Your task to perform on an android device: change the upload size in google photos Image 0: 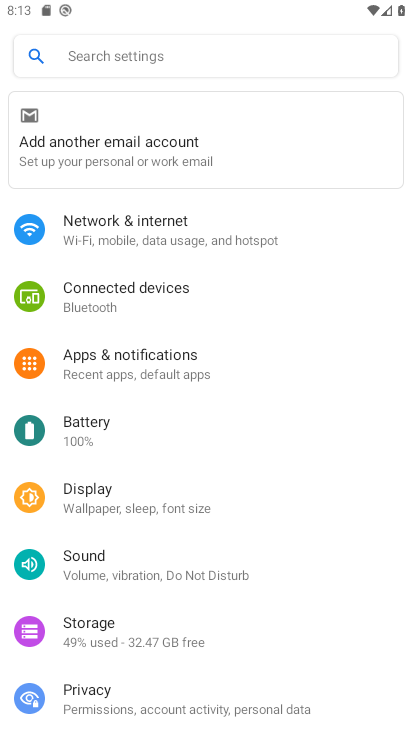
Step 0: press home button
Your task to perform on an android device: change the upload size in google photos Image 1: 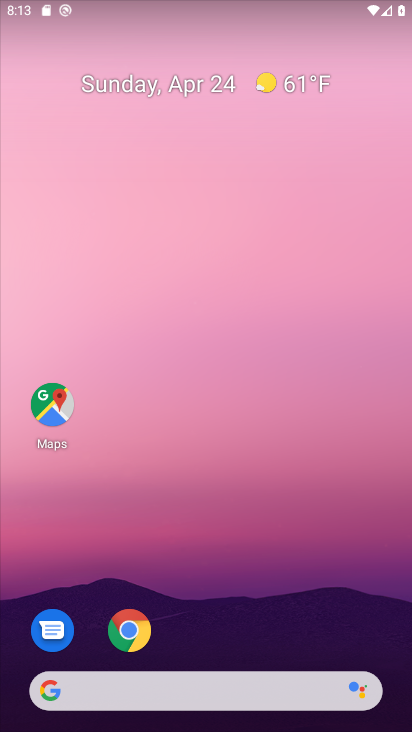
Step 1: drag from (346, 615) to (355, 193)
Your task to perform on an android device: change the upload size in google photos Image 2: 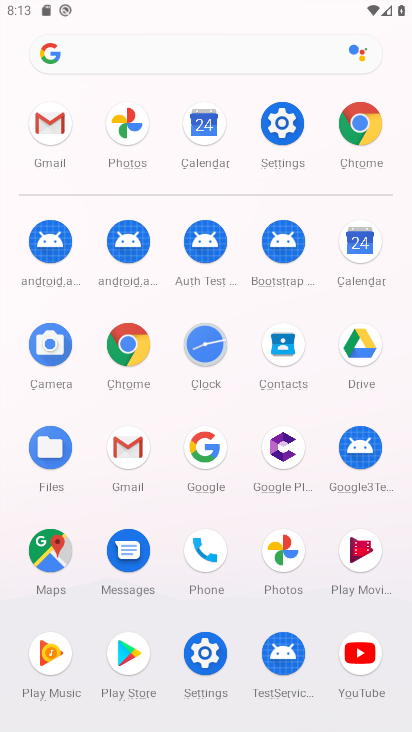
Step 2: click (277, 557)
Your task to perform on an android device: change the upload size in google photos Image 3: 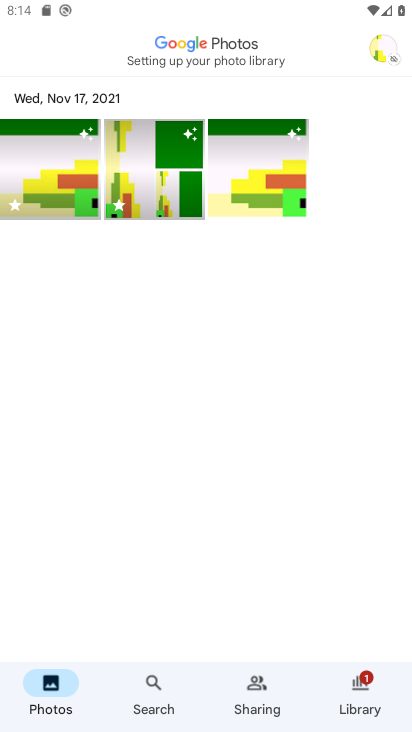
Step 3: click (384, 54)
Your task to perform on an android device: change the upload size in google photos Image 4: 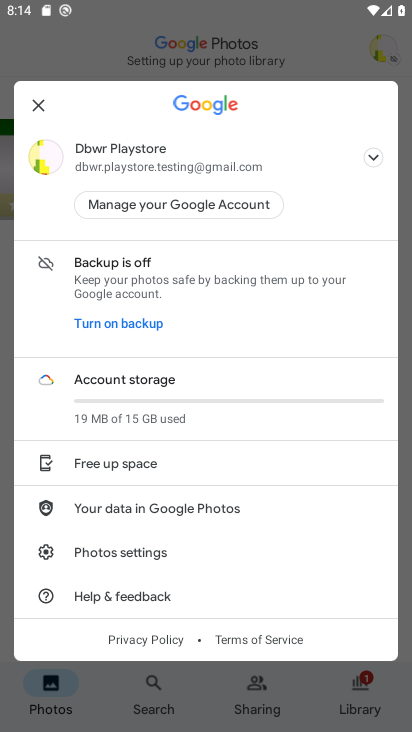
Step 4: task complete